Your task to perform on an android device: turn on data saver in the chrome app Image 0: 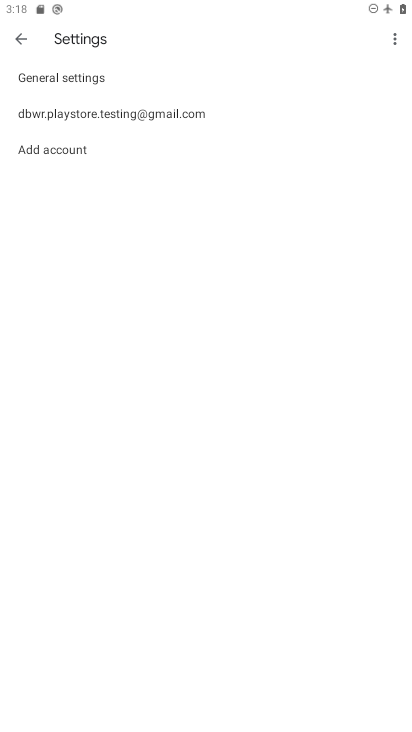
Step 0: drag from (238, 512) to (270, 106)
Your task to perform on an android device: turn on data saver in the chrome app Image 1: 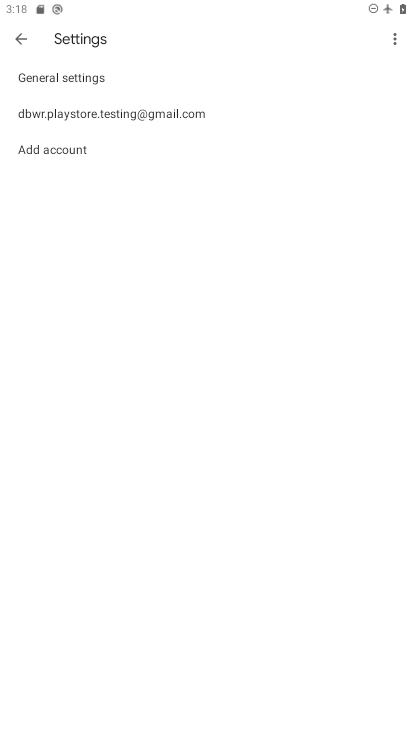
Step 1: press home button
Your task to perform on an android device: turn on data saver in the chrome app Image 2: 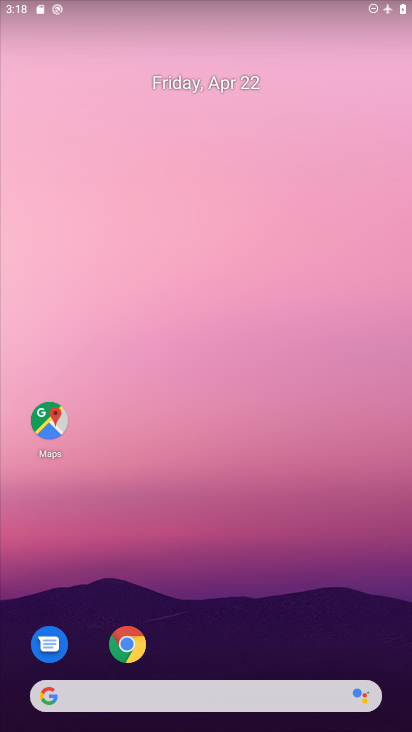
Step 2: drag from (268, 598) to (290, 175)
Your task to perform on an android device: turn on data saver in the chrome app Image 3: 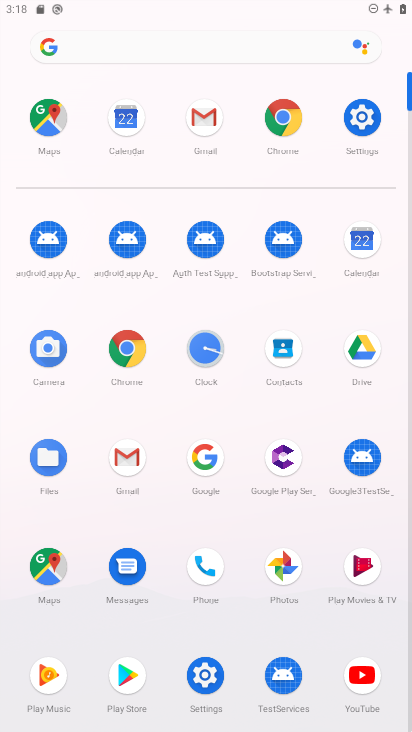
Step 3: click (128, 351)
Your task to perform on an android device: turn on data saver in the chrome app Image 4: 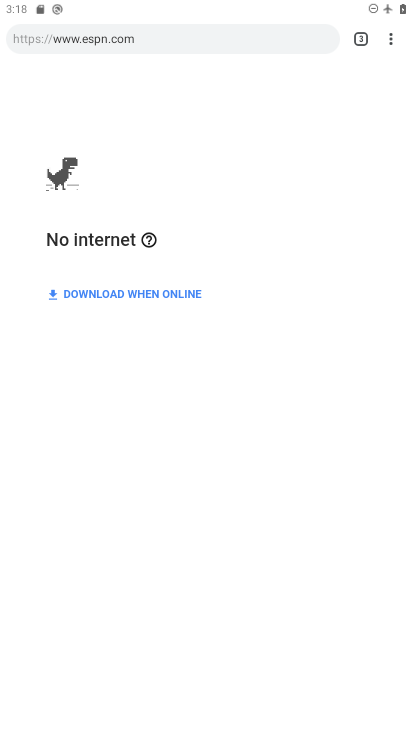
Step 4: drag from (385, 36) to (264, 476)
Your task to perform on an android device: turn on data saver in the chrome app Image 5: 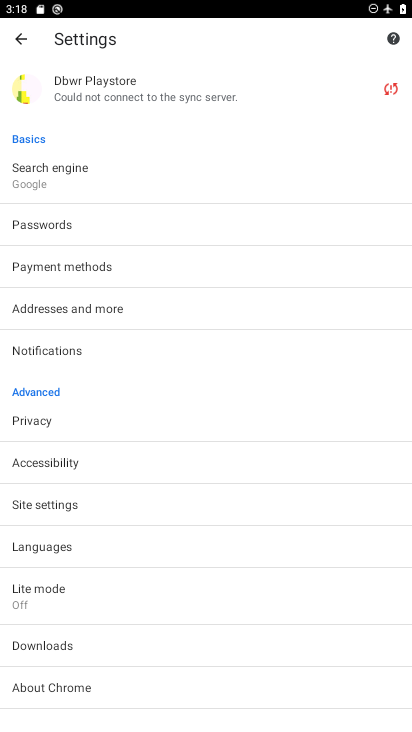
Step 5: click (68, 601)
Your task to perform on an android device: turn on data saver in the chrome app Image 6: 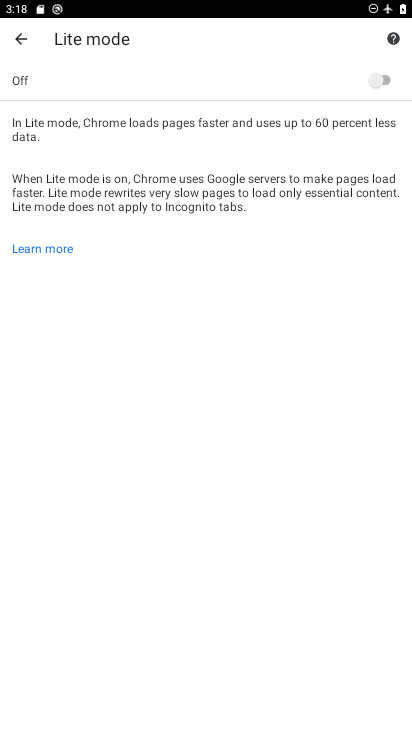
Step 6: click (302, 78)
Your task to perform on an android device: turn on data saver in the chrome app Image 7: 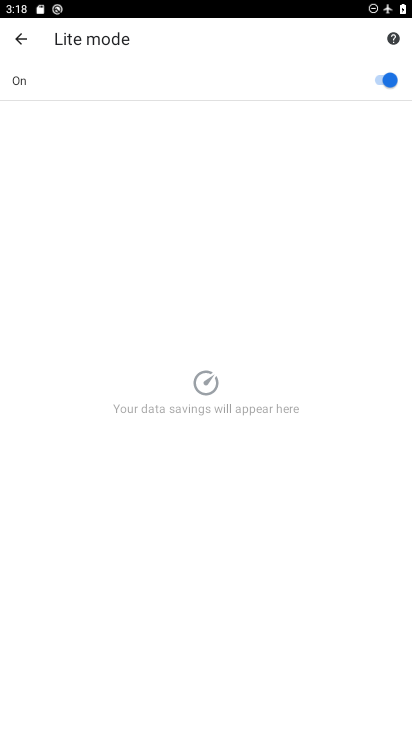
Step 7: task complete